Your task to perform on an android device: turn on priority inbox in the gmail app Image 0: 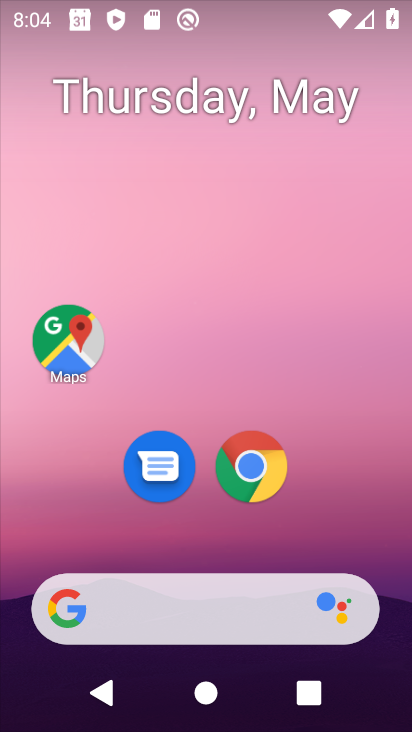
Step 0: drag from (393, 567) to (348, 146)
Your task to perform on an android device: turn on priority inbox in the gmail app Image 1: 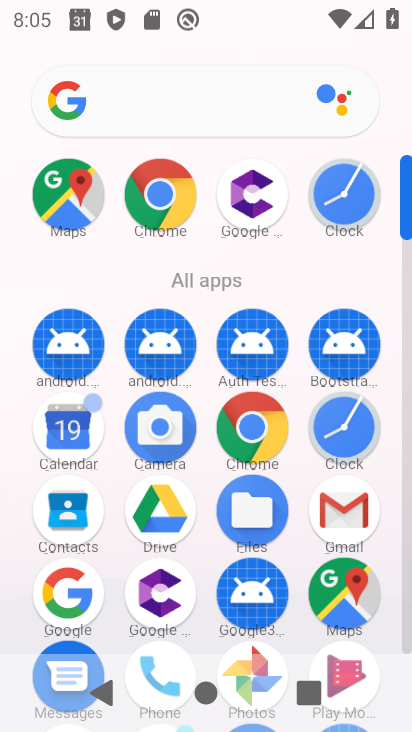
Step 1: click (330, 491)
Your task to perform on an android device: turn on priority inbox in the gmail app Image 2: 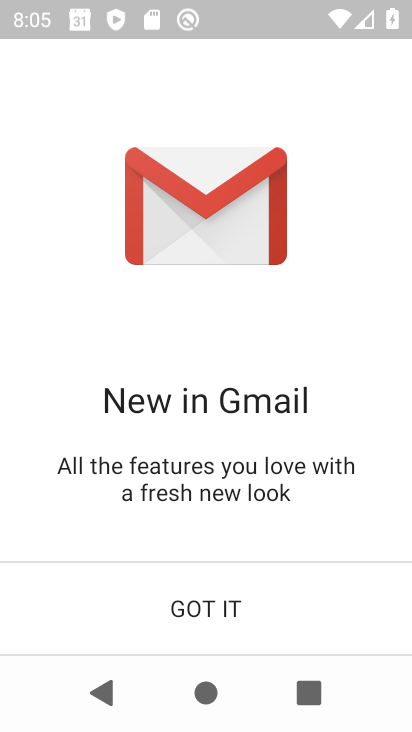
Step 2: click (209, 628)
Your task to perform on an android device: turn on priority inbox in the gmail app Image 3: 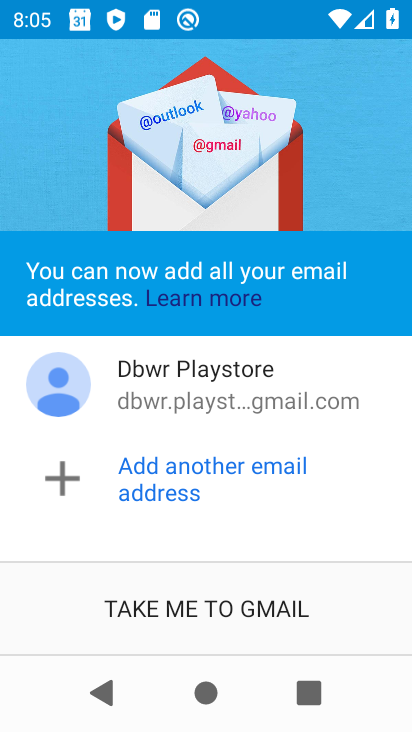
Step 3: click (217, 595)
Your task to perform on an android device: turn on priority inbox in the gmail app Image 4: 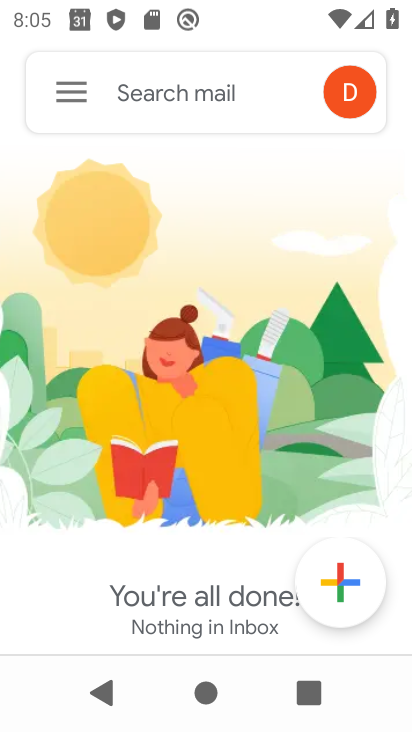
Step 4: click (72, 117)
Your task to perform on an android device: turn on priority inbox in the gmail app Image 5: 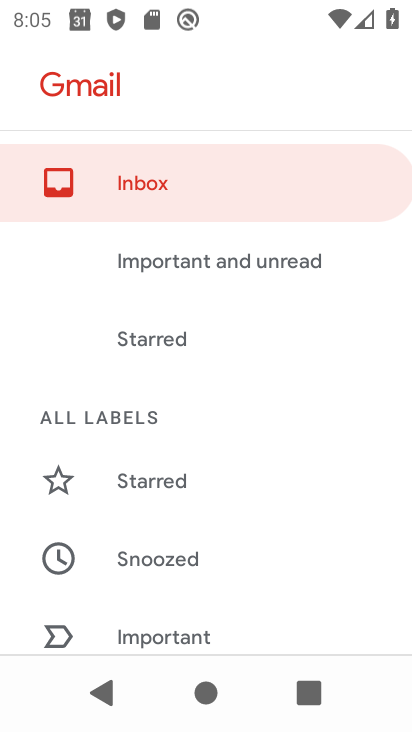
Step 5: drag from (220, 628) to (227, 177)
Your task to perform on an android device: turn on priority inbox in the gmail app Image 6: 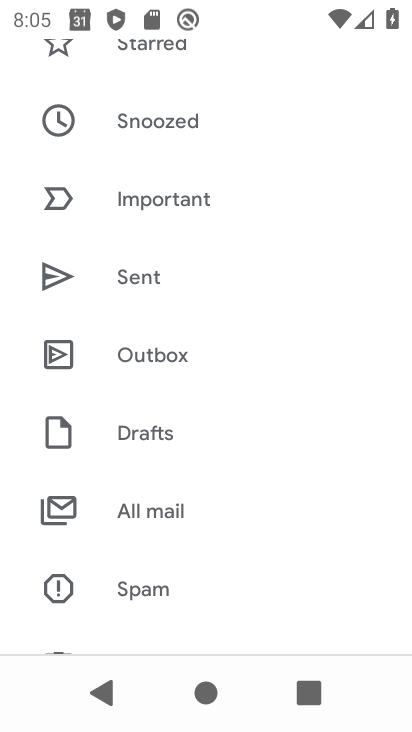
Step 6: drag from (222, 602) to (191, 118)
Your task to perform on an android device: turn on priority inbox in the gmail app Image 7: 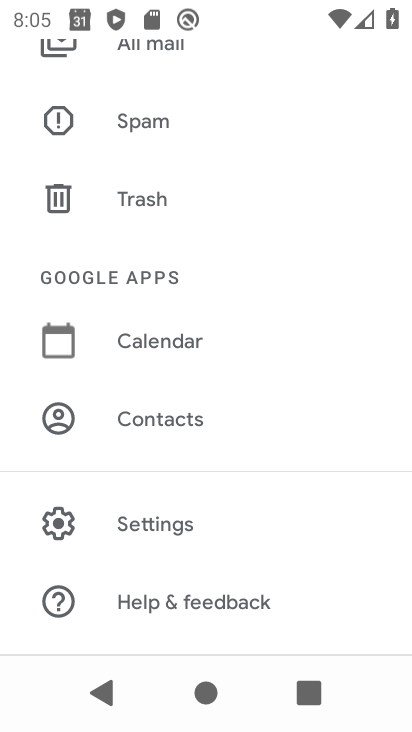
Step 7: click (224, 518)
Your task to perform on an android device: turn on priority inbox in the gmail app Image 8: 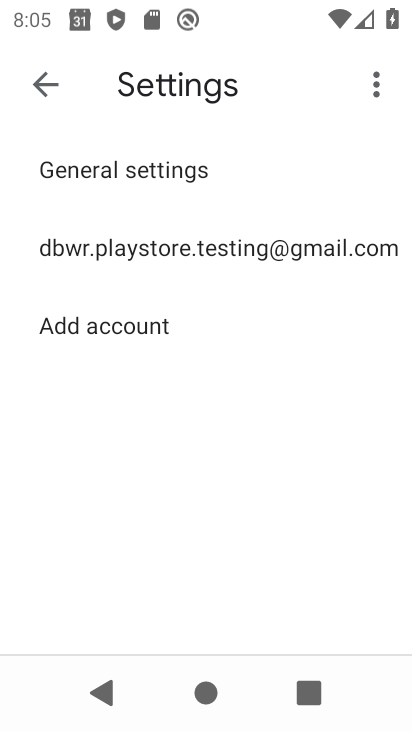
Step 8: click (257, 252)
Your task to perform on an android device: turn on priority inbox in the gmail app Image 9: 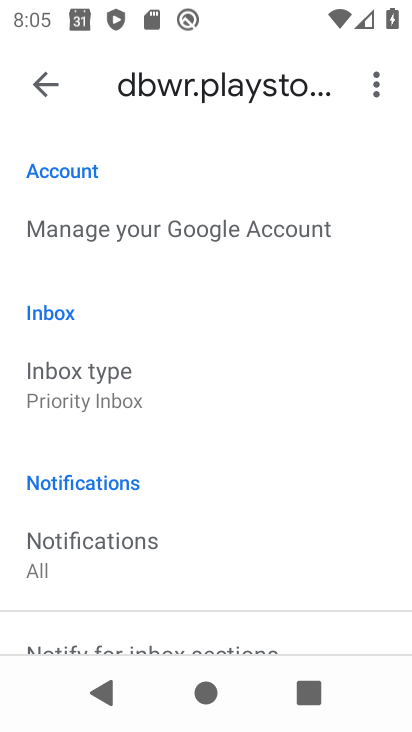
Step 9: click (247, 365)
Your task to perform on an android device: turn on priority inbox in the gmail app Image 10: 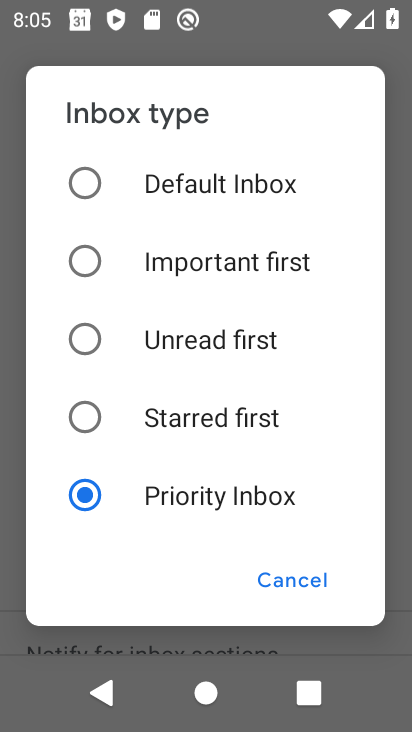
Step 10: task complete